Your task to perform on an android device: Is it going to rain today? Image 0: 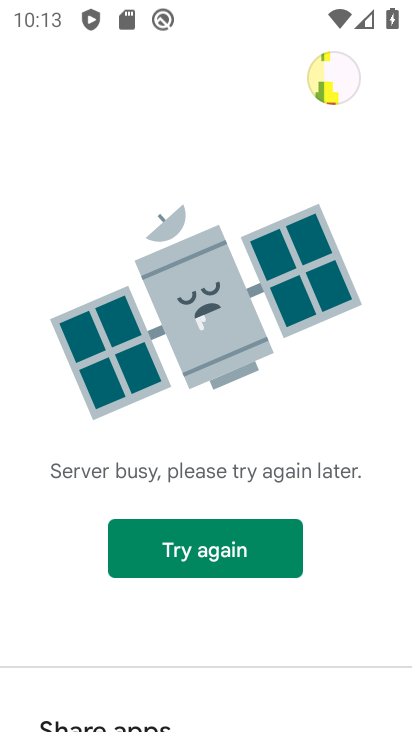
Step 0: press back button
Your task to perform on an android device: Is it going to rain today? Image 1: 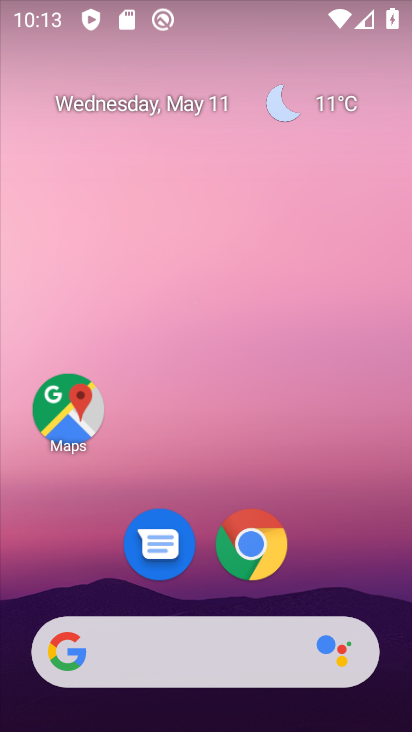
Step 1: click (300, 108)
Your task to perform on an android device: Is it going to rain today? Image 2: 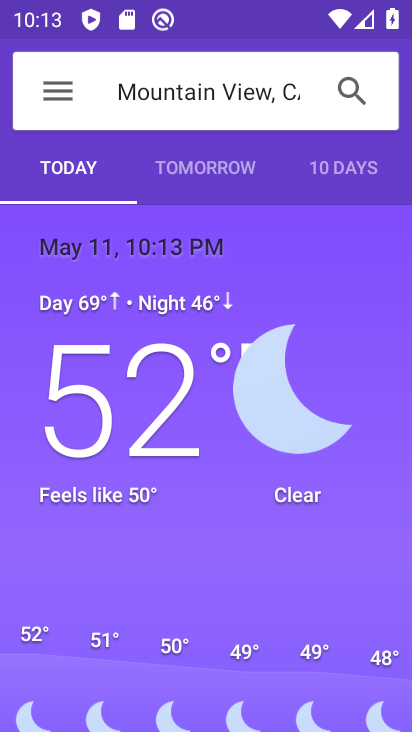
Step 2: task complete